Your task to perform on an android device: open app "YouTube Kids" (install if not already installed), go to login, and select forgot password Image 0: 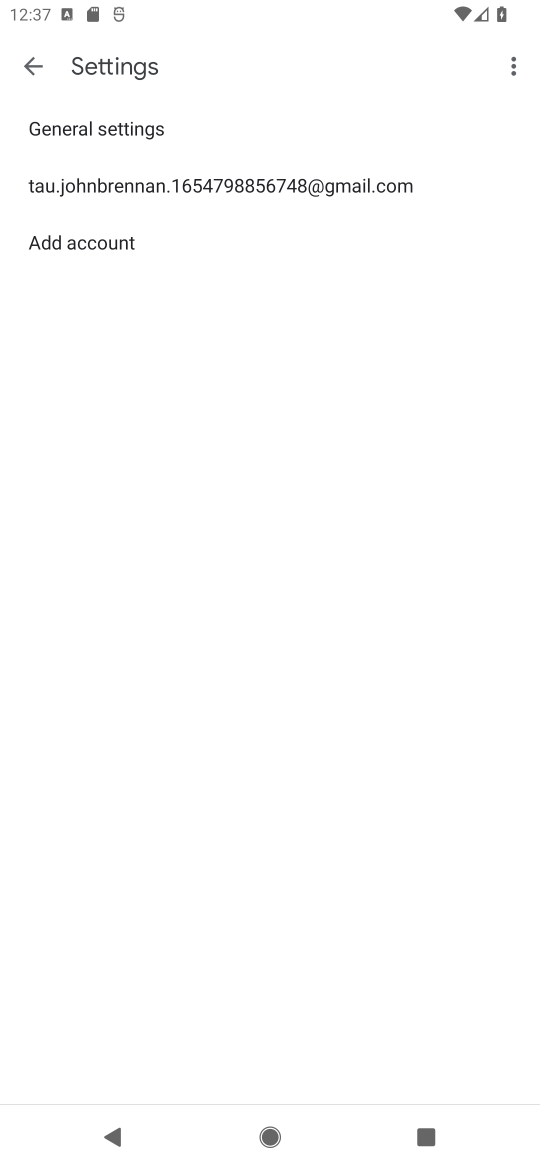
Step 0: press home button
Your task to perform on an android device: open app "YouTube Kids" (install if not already installed), go to login, and select forgot password Image 1: 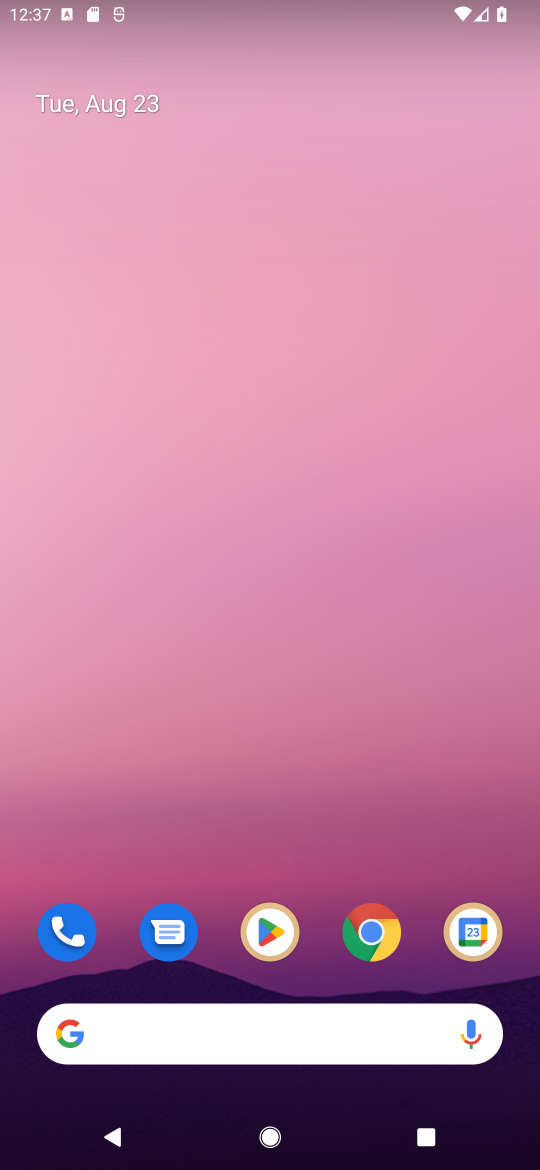
Step 1: click (258, 931)
Your task to perform on an android device: open app "YouTube Kids" (install if not already installed), go to login, and select forgot password Image 2: 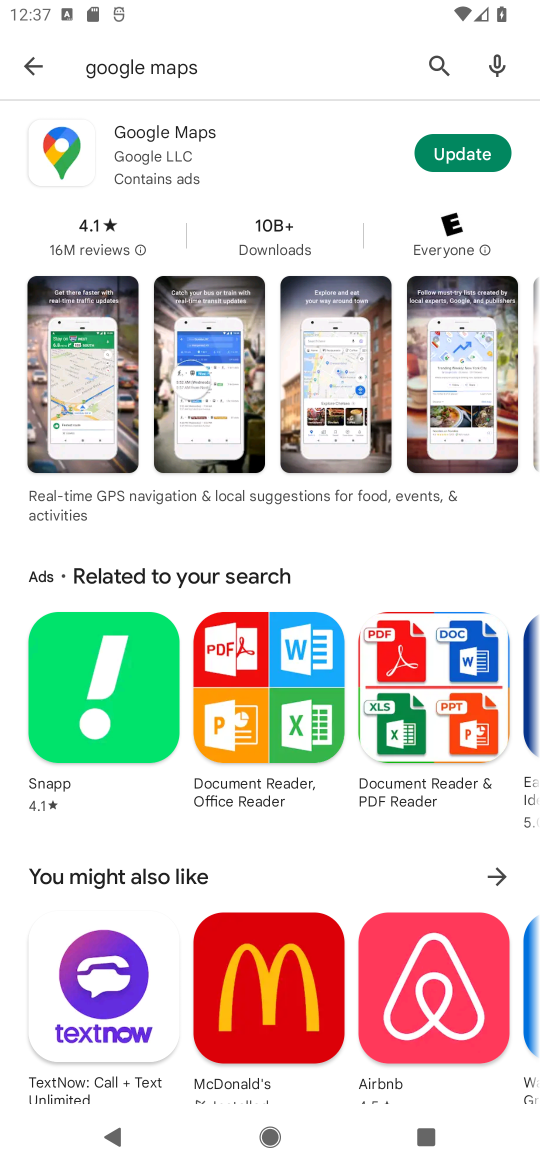
Step 2: click (441, 65)
Your task to perform on an android device: open app "YouTube Kids" (install if not already installed), go to login, and select forgot password Image 3: 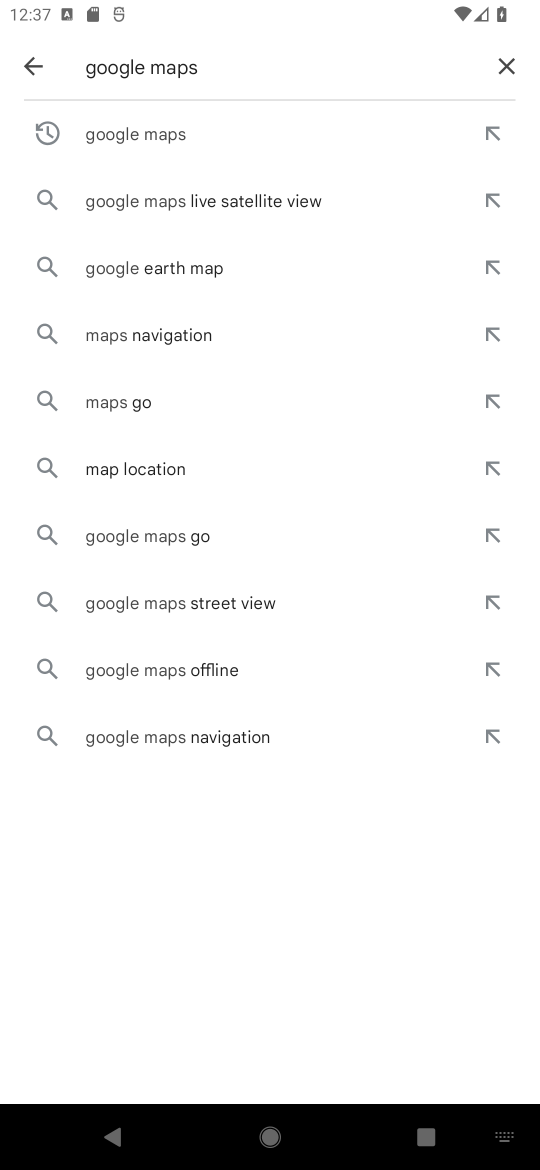
Step 3: click (509, 62)
Your task to perform on an android device: open app "YouTube Kids" (install if not already installed), go to login, and select forgot password Image 4: 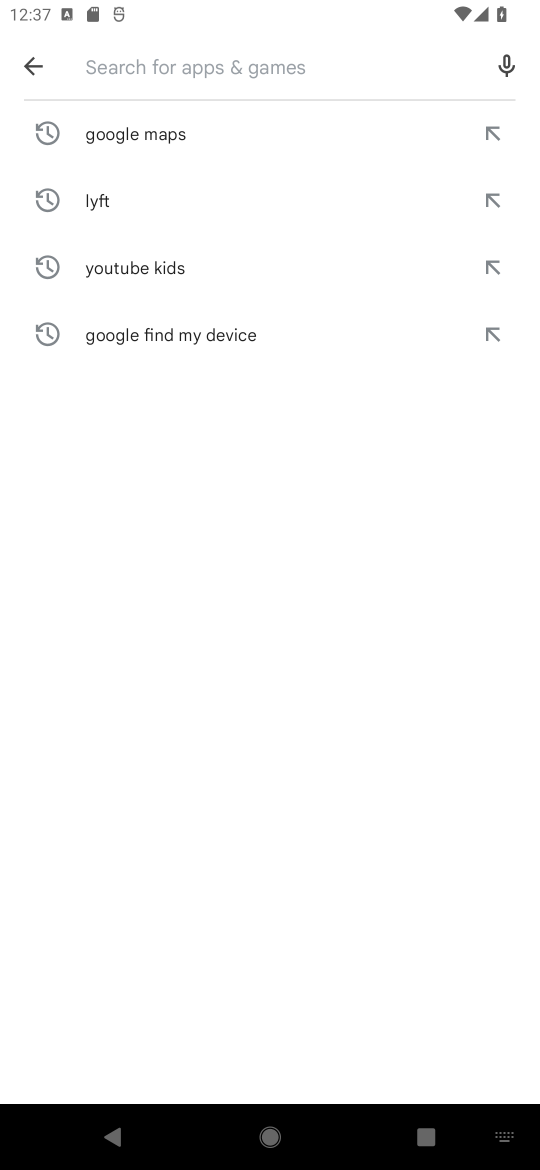
Step 4: click (207, 62)
Your task to perform on an android device: open app "YouTube Kids" (install if not already installed), go to login, and select forgot password Image 5: 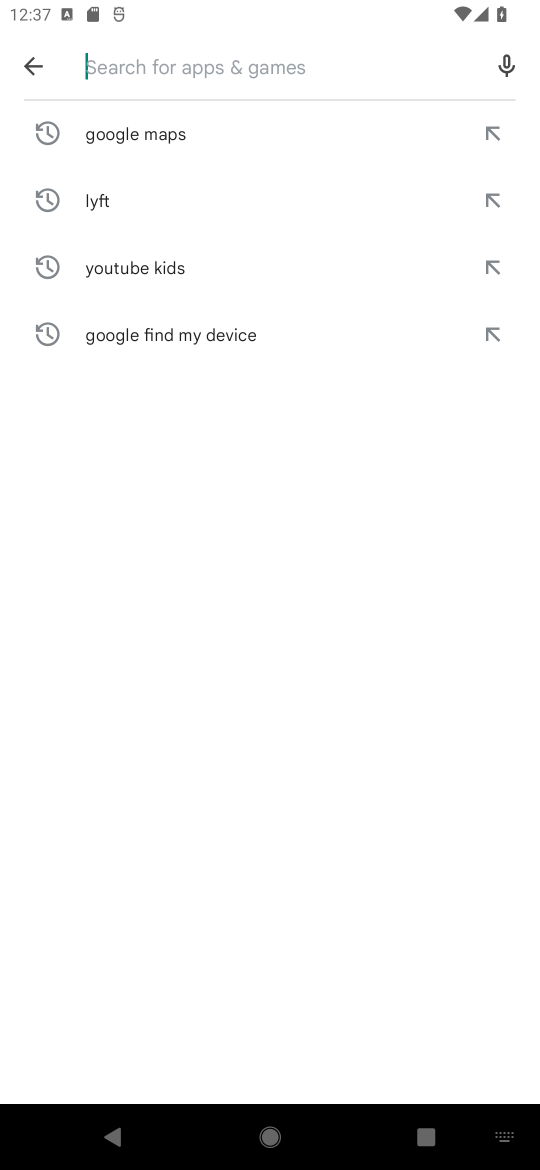
Step 5: type "YouTube Kids"
Your task to perform on an android device: open app "YouTube Kids" (install if not already installed), go to login, and select forgot password Image 6: 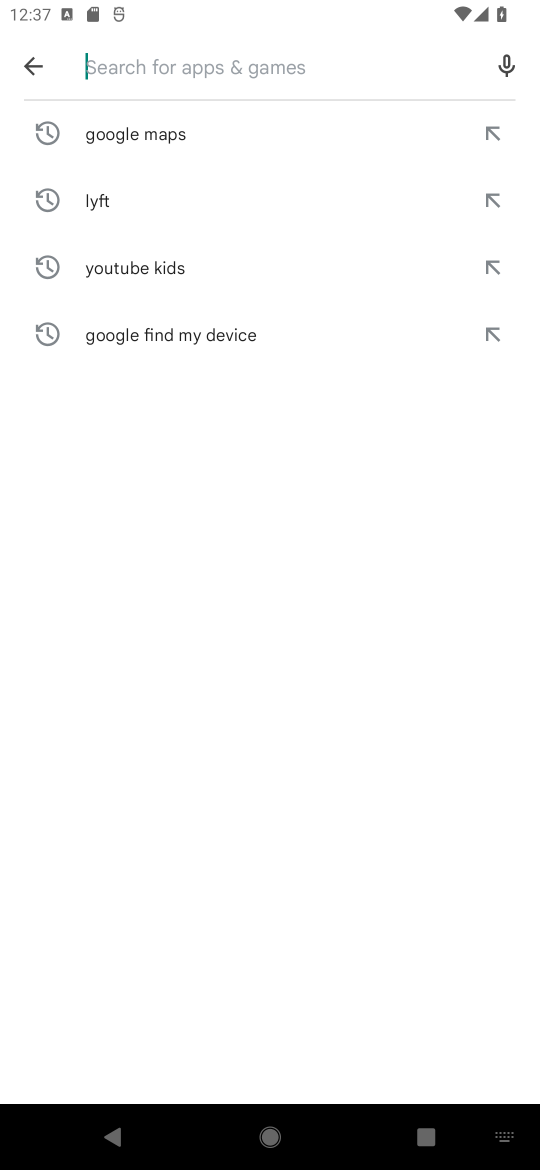
Step 6: click (390, 681)
Your task to perform on an android device: open app "YouTube Kids" (install if not already installed), go to login, and select forgot password Image 7: 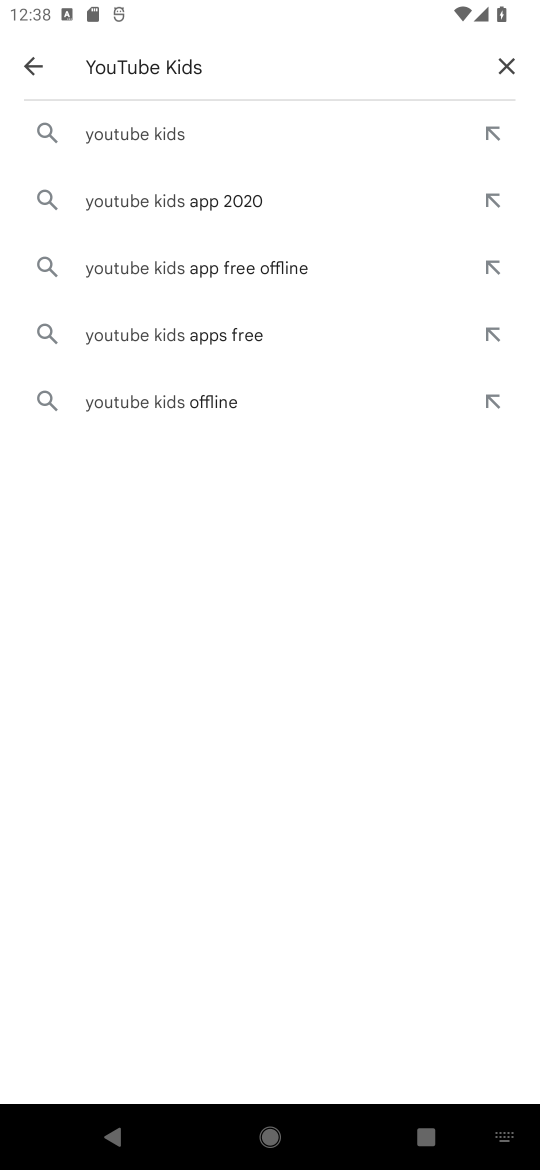
Step 7: click (225, 124)
Your task to perform on an android device: open app "YouTube Kids" (install if not already installed), go to login, and select forgot password Image 8: 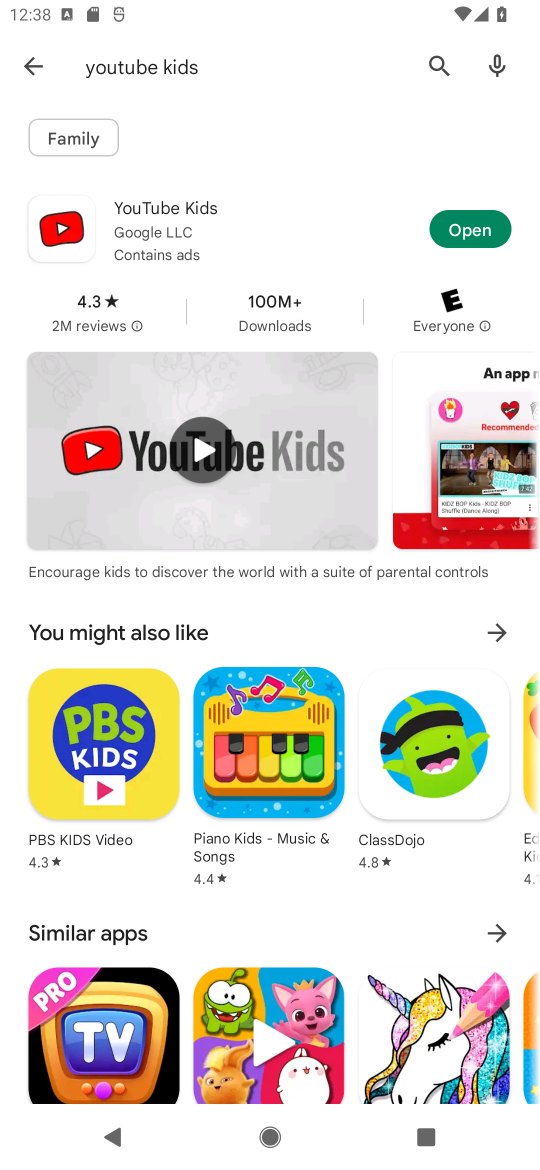
Step 8: click (462, 237)
Your task to perform on an android device: open app "YouTube Kids" (install if not already installed), go to login, and select forgot password Image 9: 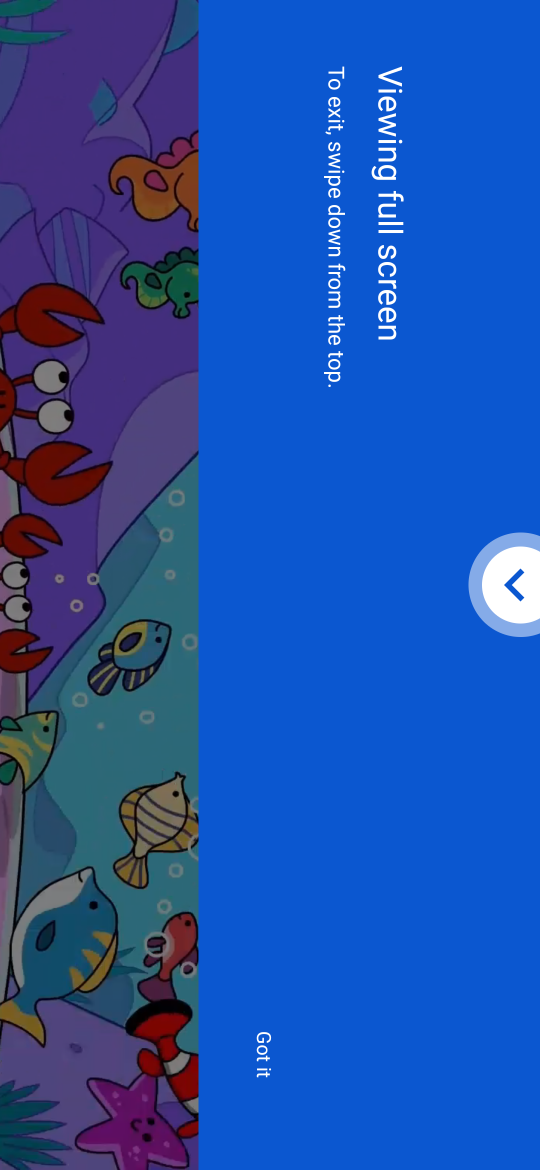
Step 9: task complete